Your task to perform on an android device: Open sound settings Image 0: 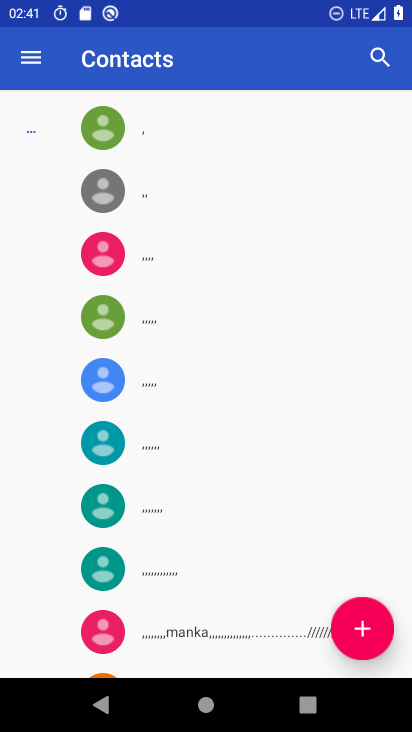
Step 0: press home button
Your task to perform on an android device: Open sound settings Image 1: 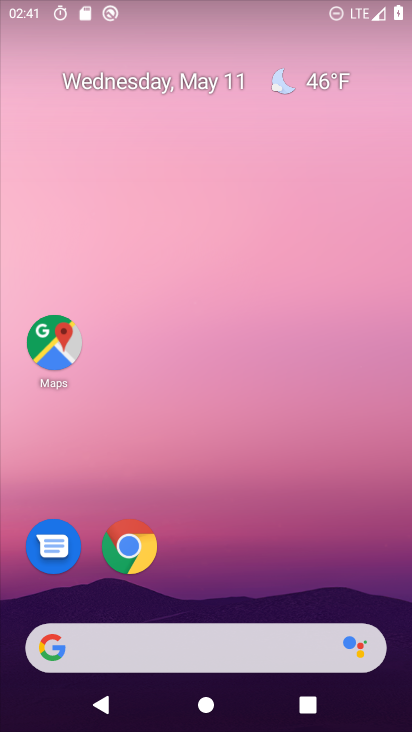
Step 1: drag from (259, 654) to (233, 210)
Your task to perform on an android device: Open sound settings Image 2: 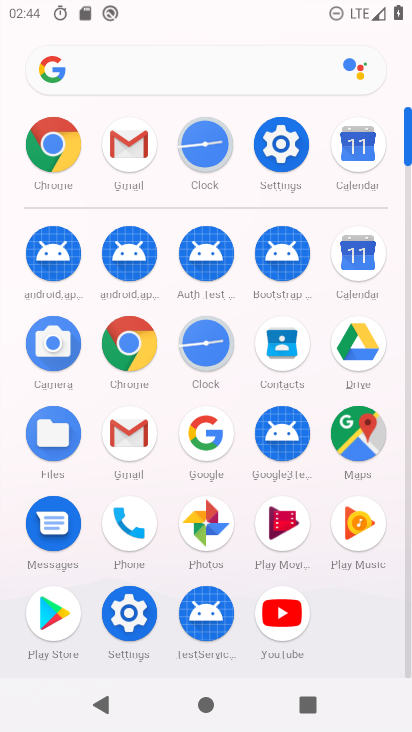
Step 2: click (290, 126)
Your task to perform on an android device: Open sound settings Image 3: 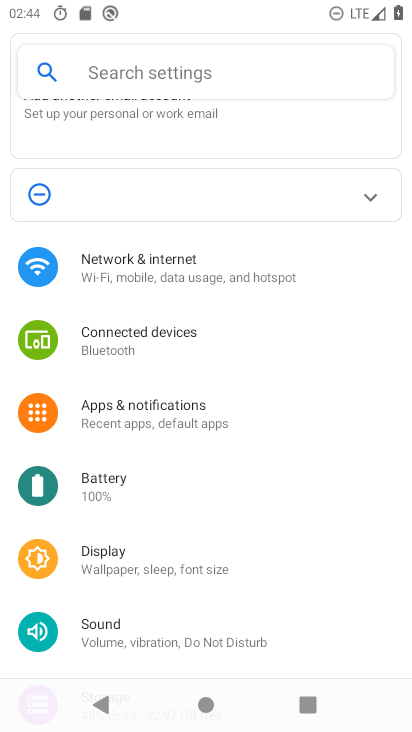
Step 3: click (141, 639)
Your task to perform on an android device: Open sound settings Image 4: 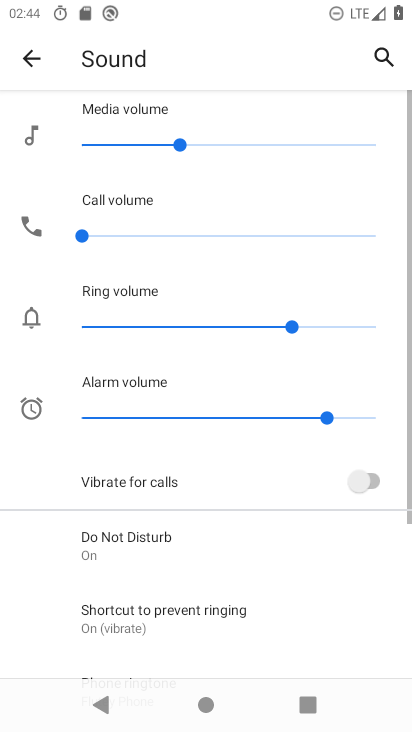
Step 4: task complete